Your task to perform on an android device: visit the assistant section in the google photos Image 0: 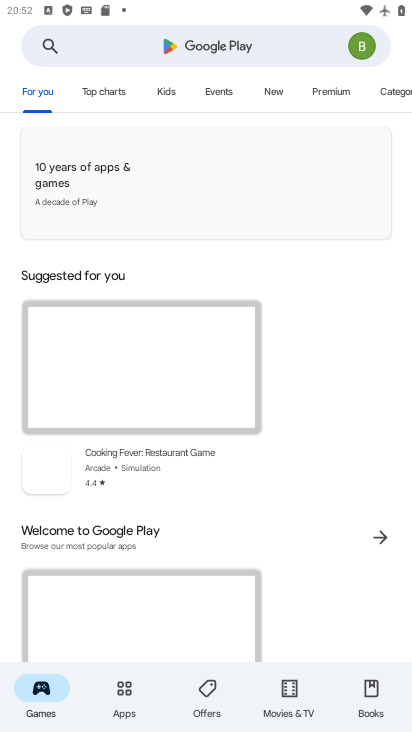
Step 0: press home button
Your task to perform on an android device: visit the assistant section in the google photos Image 1: 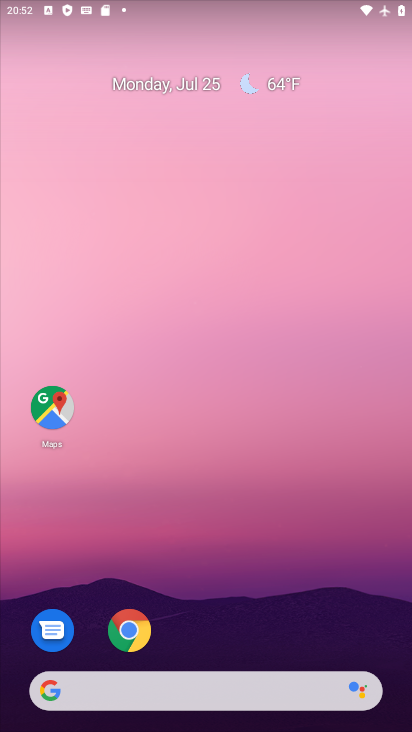
Step 1: drag from (377, 653) to (341, 190)
Your task to perform on an android device: visit the assistant section in the google photos Image 2: 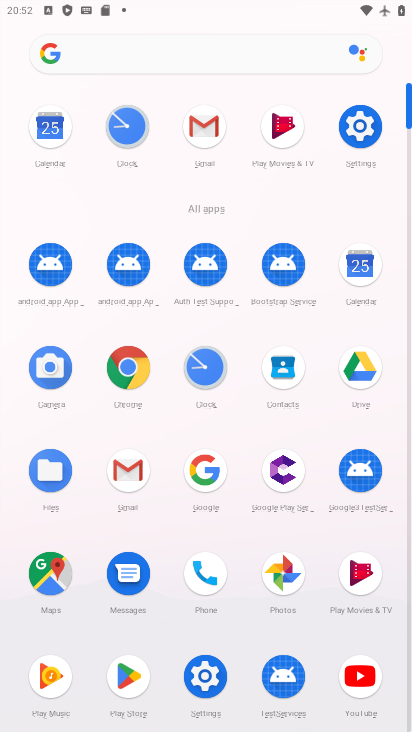
Step 2: click (282, 574)
Your task to perform on an android device: visit the assistant section in the google photos Image 3: 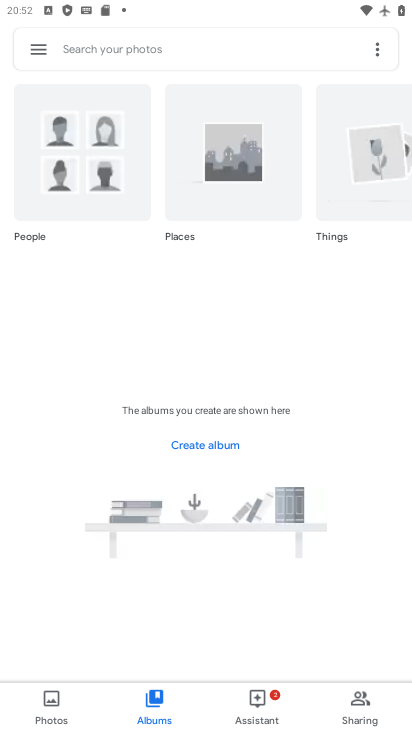
Step 3: click (260, 696)
Your task to perform on an android device: visit the assistant section in the google photos Image 4: 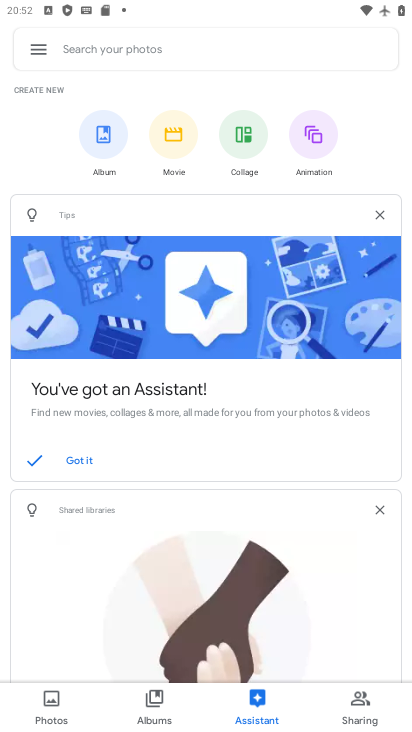
Step 4: task complete